Your task to perform on an android device: toggle priority inbox in the gmail app Image 0: 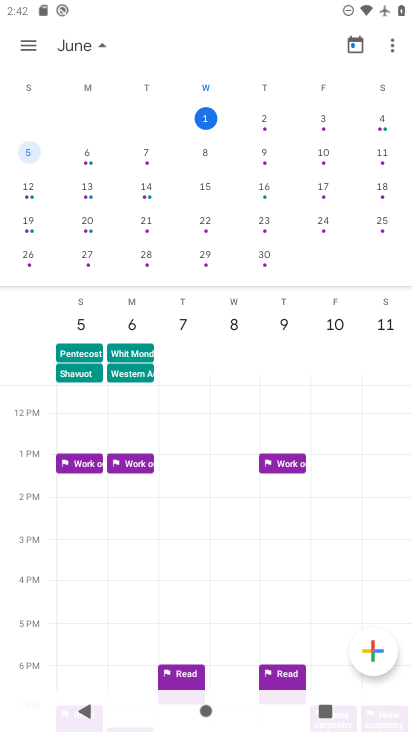
Step 0: press home button
Your task to perform on an android device: toggle priority inbox in the gmail app Image 1: 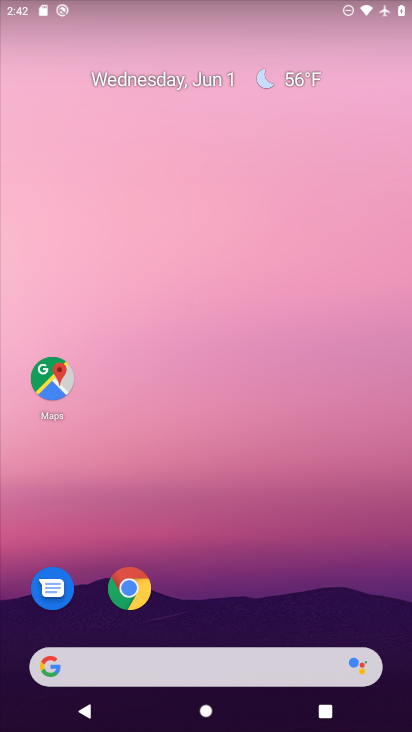
Step 1: drag from (266, 463) to (215, 0)
Your task to perform on an android device: toggle priority inbox in the gmail app Image 2: 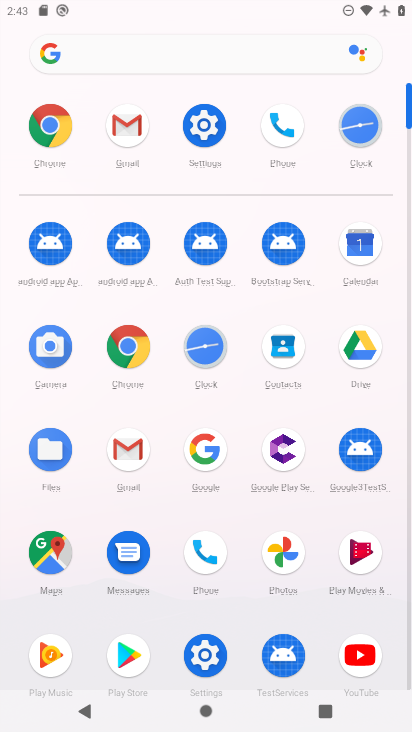
Step 2: click (135, 454)
Your task to perform on an android device: toggle priority inbox in the gmail app Image 3: 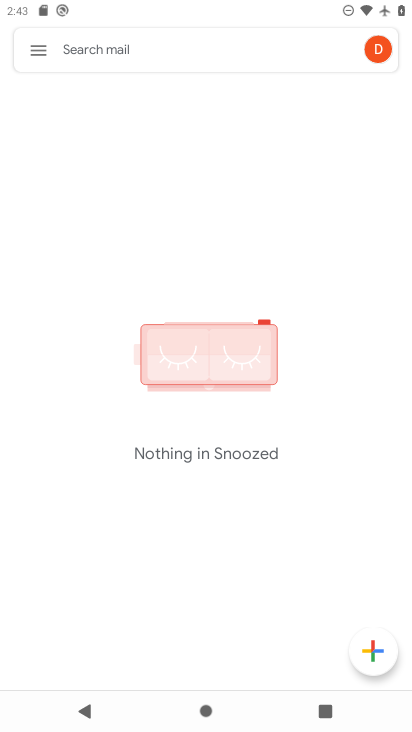
Step 3: click (43, 37)
Your task to perform on an android device: toggle priority inbox in the gmail app Image 4: 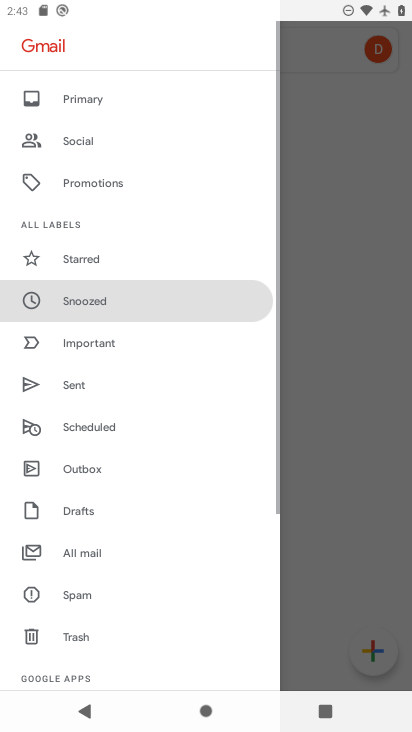
Step 4: drag from (197, 549) to (199, 104)
Your task to perform on an android device: toggle priority inbox in the gmail app Image 5: 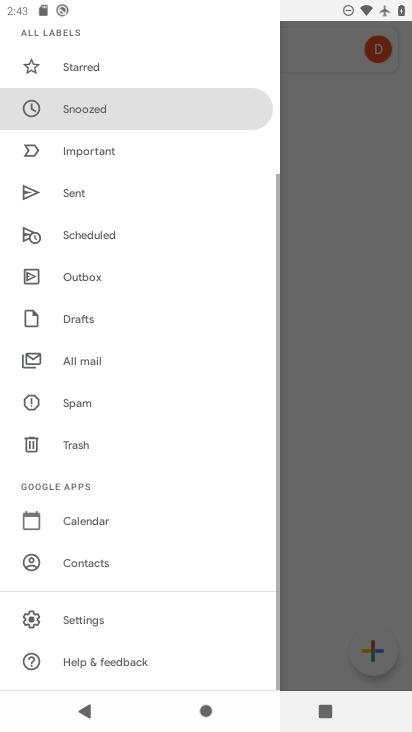
Step 5: click (101, 618)
Your task to perform on an android device: toggle priority inbox in the gmail app Image 6: 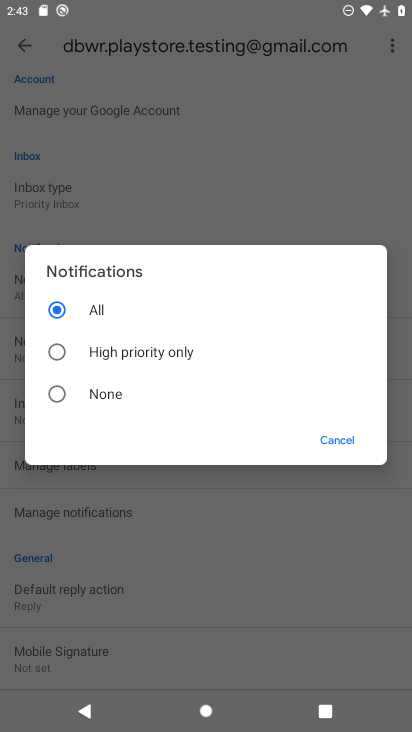
Step 6: click (204, 201)
Your task to perform on an android device: toggle priority inbox in the gmail app Image 7: 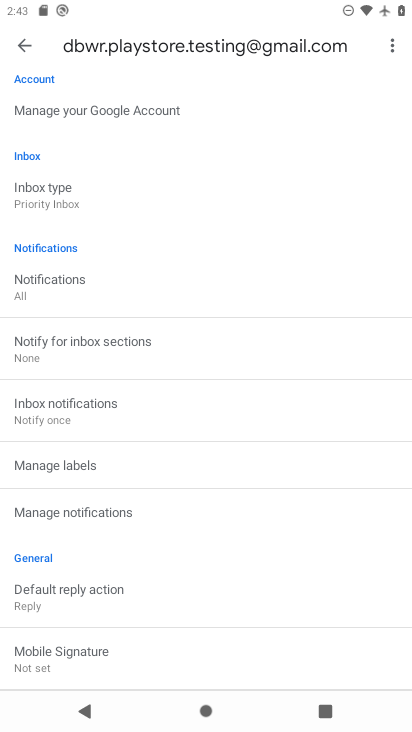
Step 7: click (74, 188)
Your task to perform on an android device: toggle priority inbox in the gmail app Image 8: 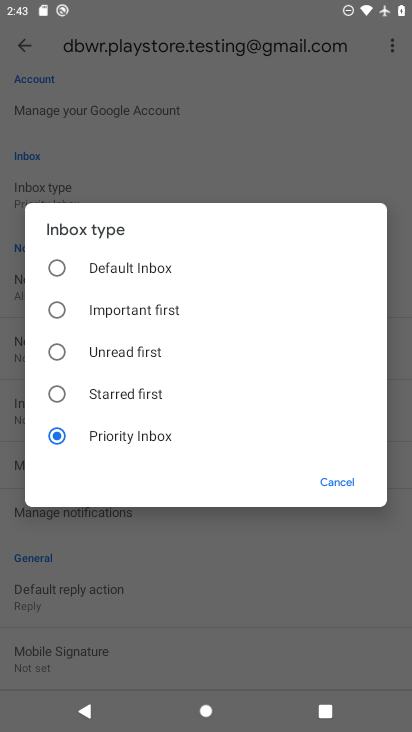
Step 8: click (159, 267)
Your task to perform on an android device: toggle priority inbox in the gmail app Image 9: 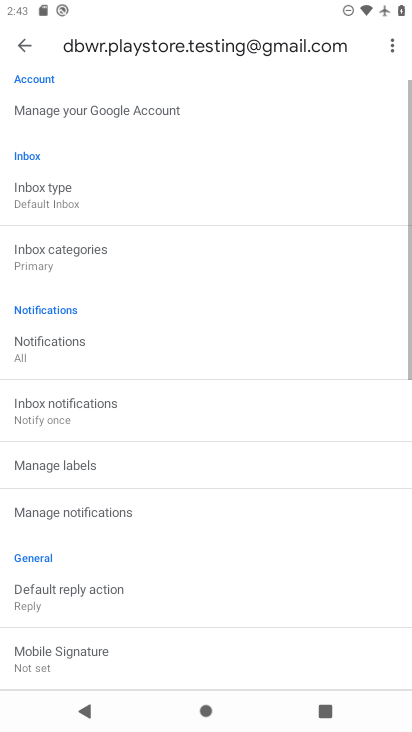
Step 9: task complete